Your task to perform on an android device: Set the phone to "Do not disturb". Image 0: 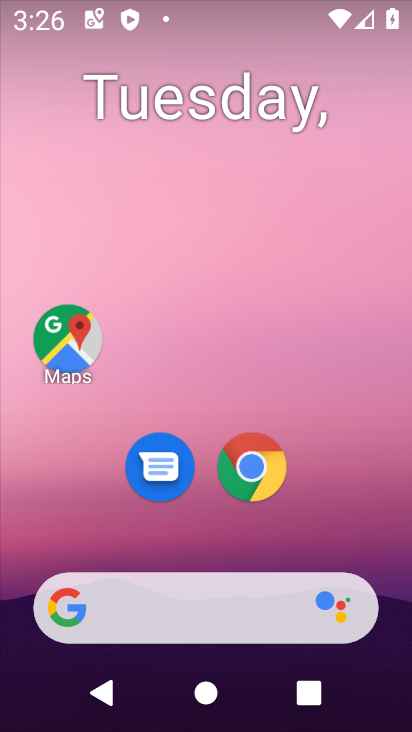
Step 0: drag from (253, 6) to (250, 570)
Your task to perform on an android device: Set the phone to "Do not disturb". Image 1: 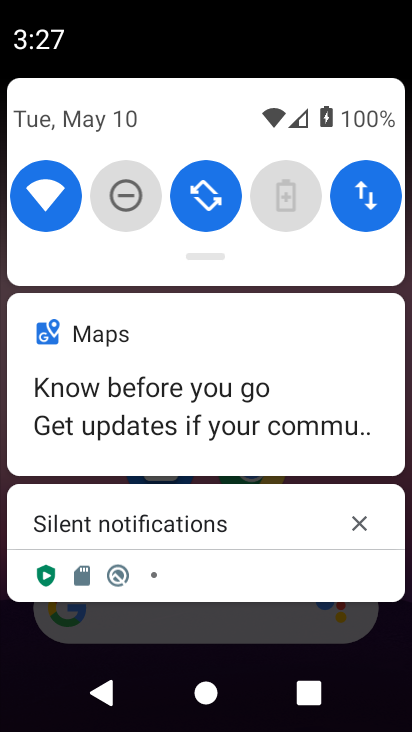
Step 1: click (125, 179)
Your task to perform on an android device: Set the phone to "Do not disturb". Image 2: 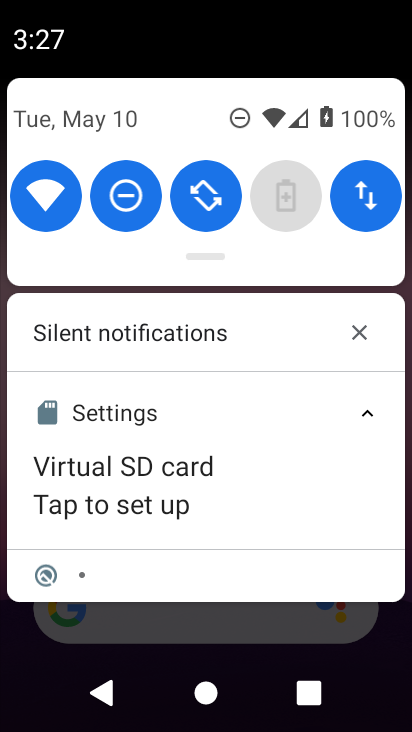
Step 2: task complete